Your task to perform on an android device: Empty the shopping cart on target. Image 0: 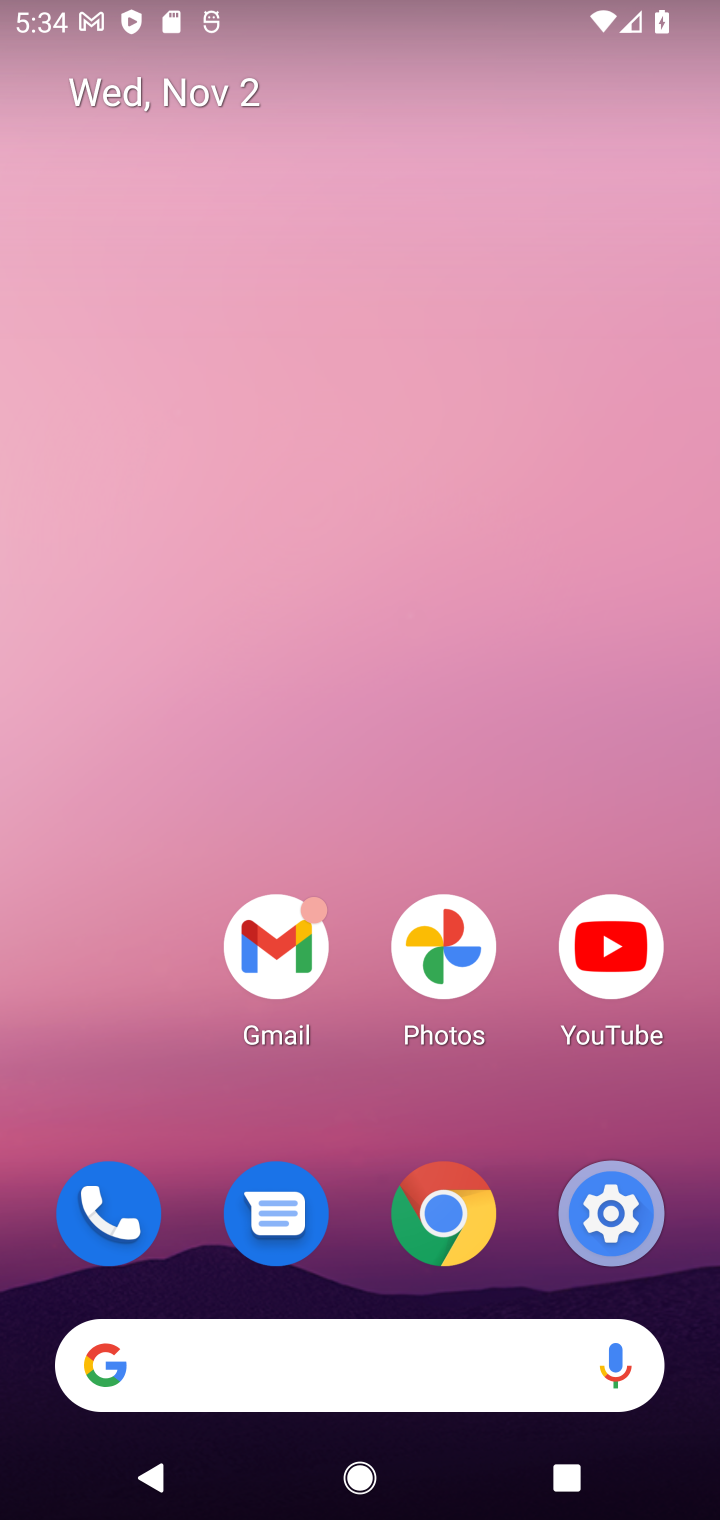
Step 0: click (450, 1220)
Your task to perform on an android device: Empty the shopping cart on target. Image 1: 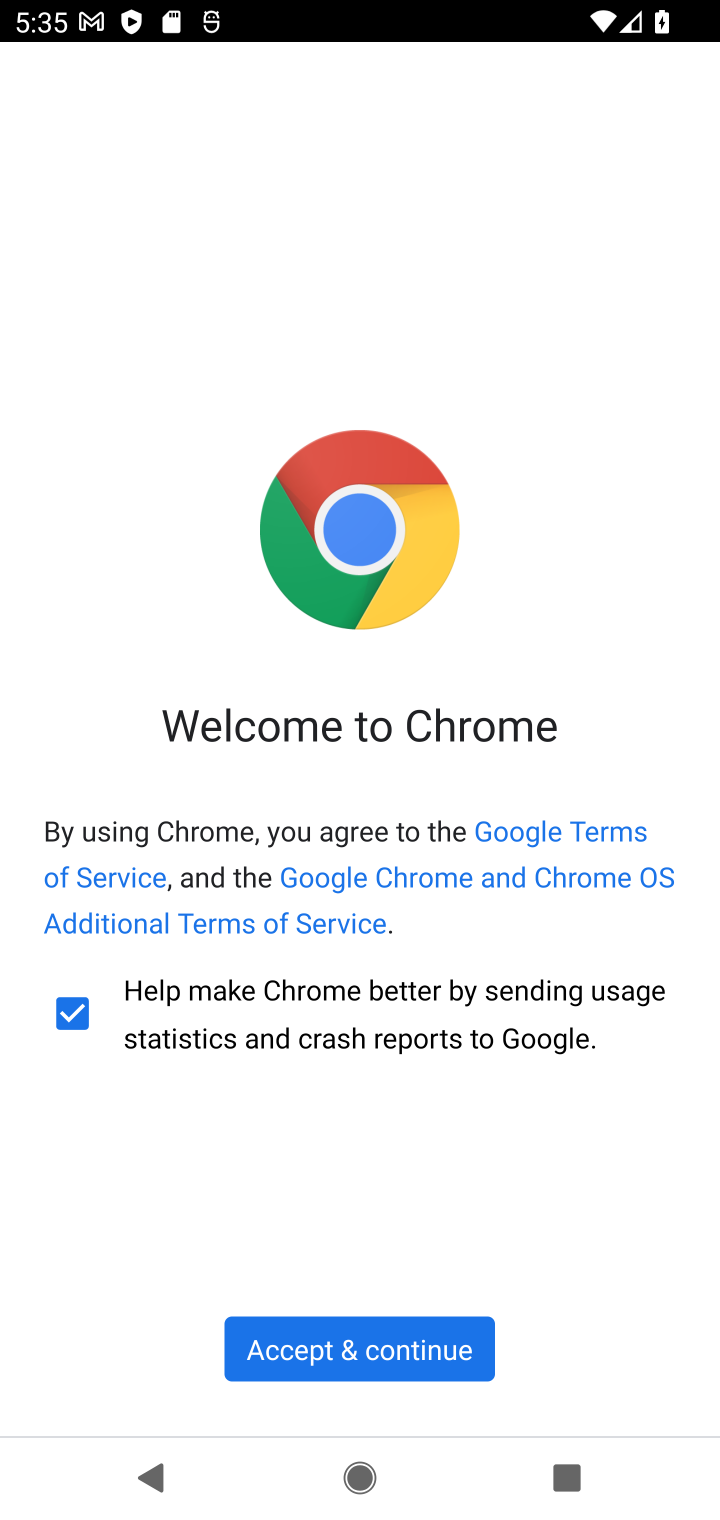
Step 1: click (355, 1353)
Your task to perform on an android device: Empty the shopping cart on target. Image 2: 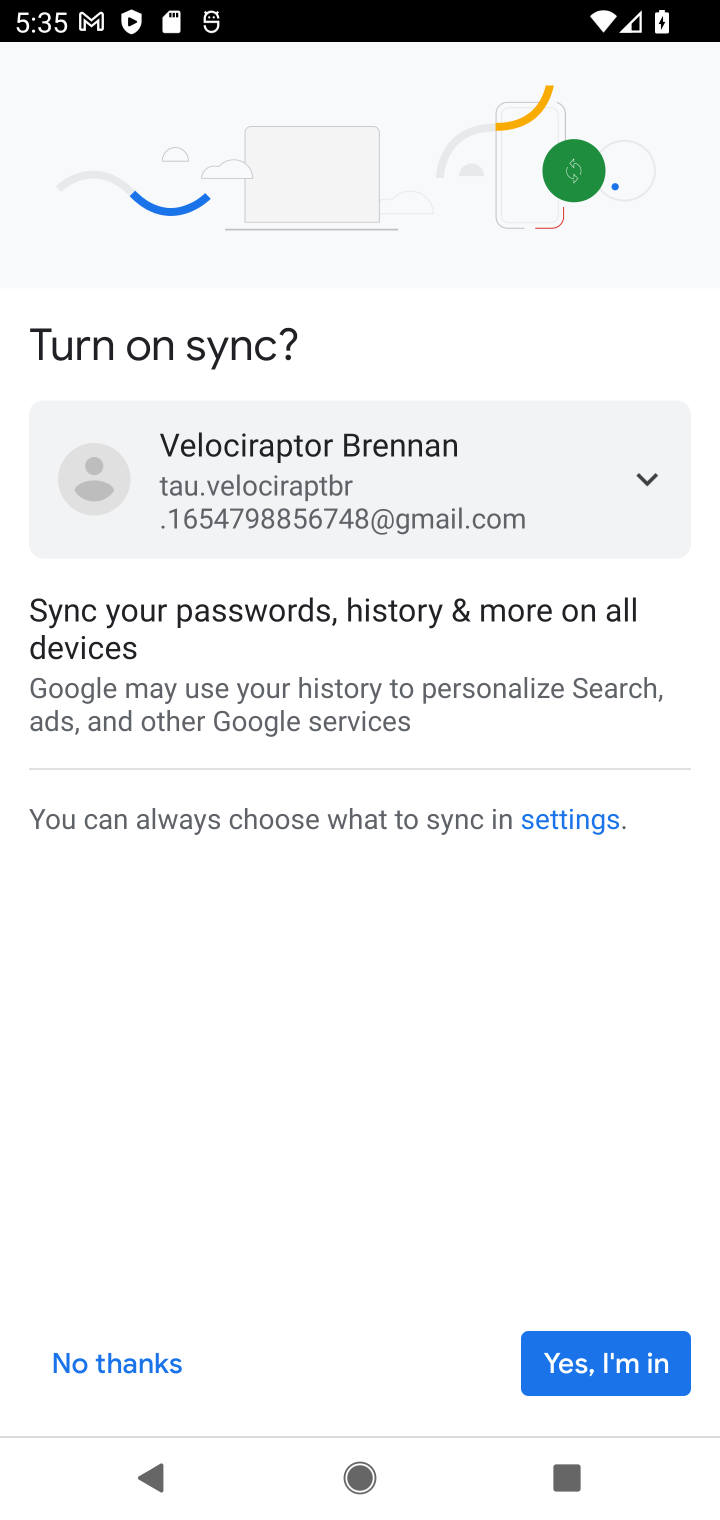
Step 2: click (617, 1359)
Your task to perform on an android device: Empty the shopping cart on target. Image 3: 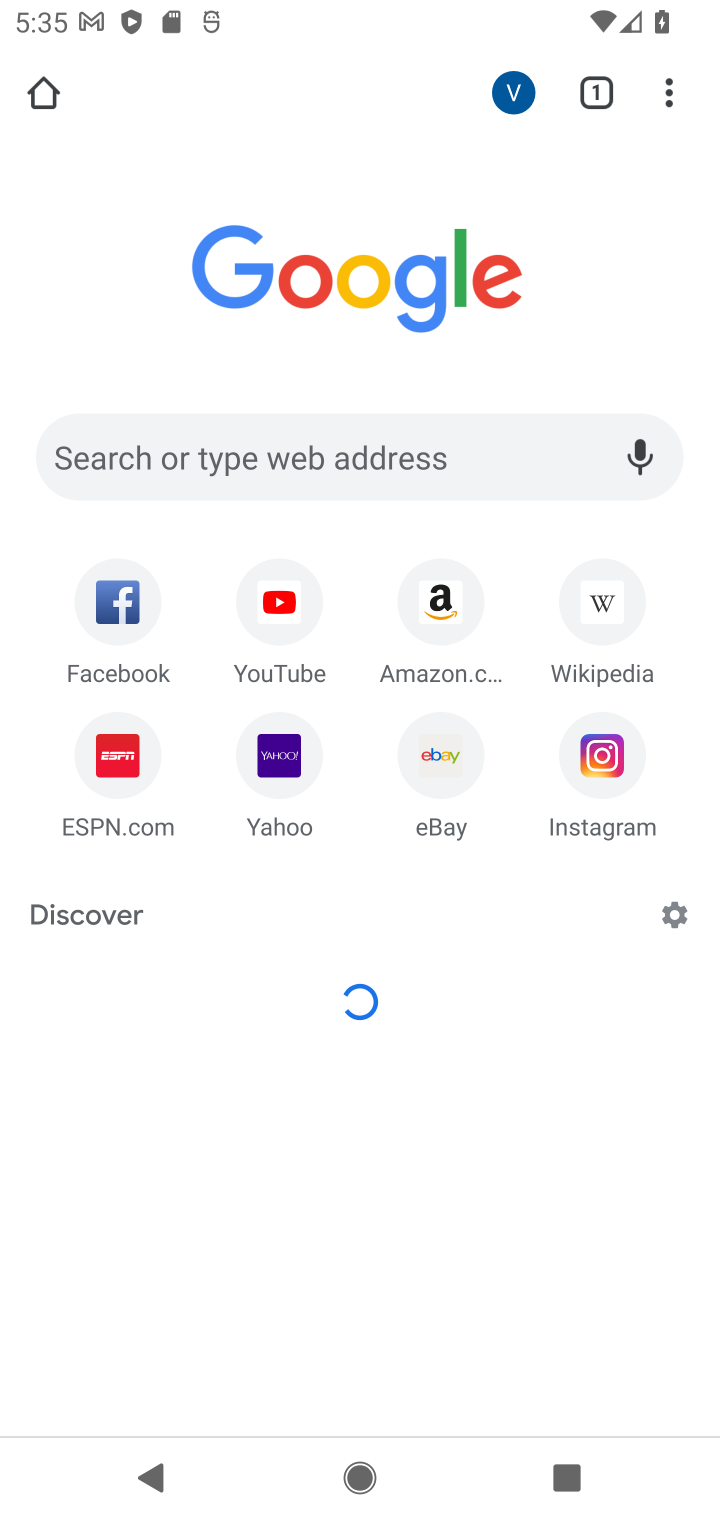
Step 3: click (311, 447)
Your task to perform on an android device: Empty the shopping cart on target. Image 4: 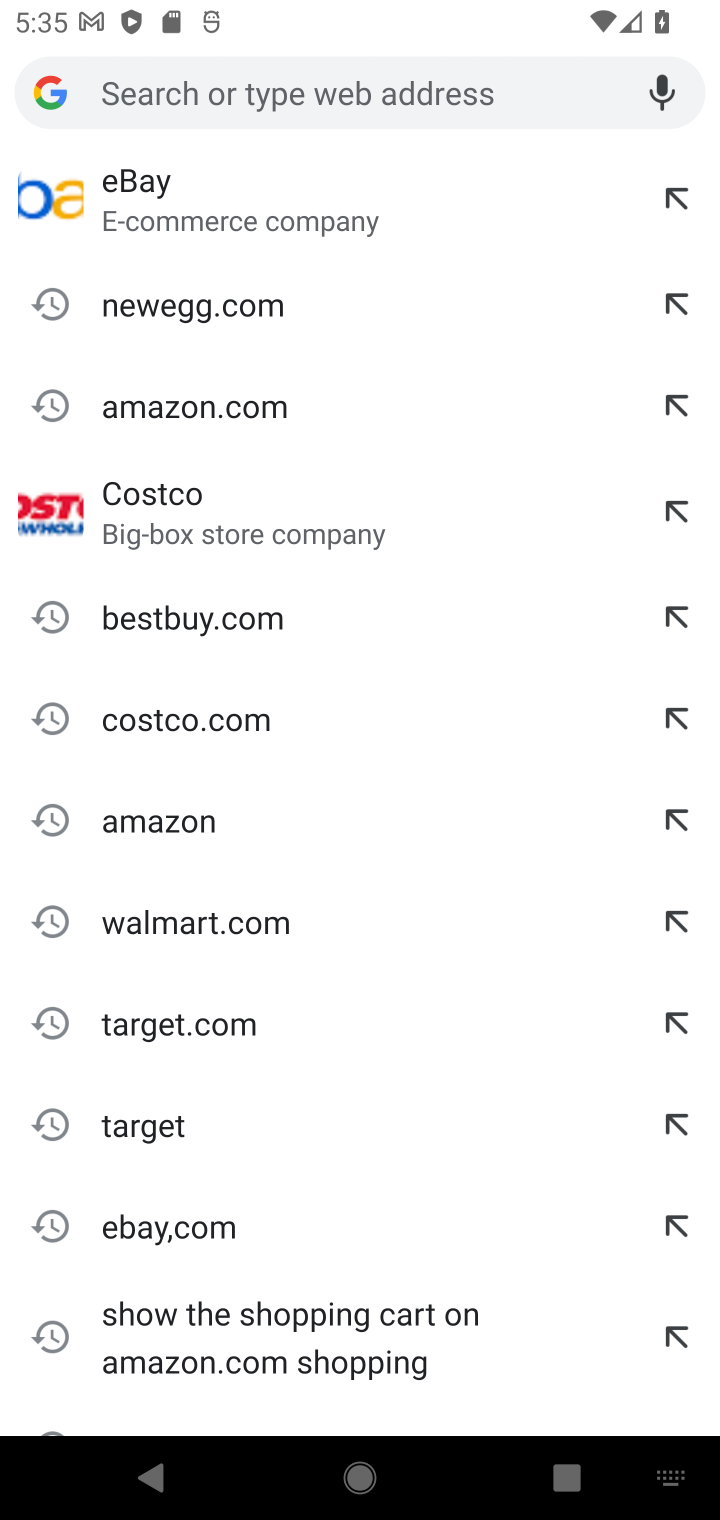
Step 4: type "target"
Your task to perform on an android device: Empty the shopping cart on target. Image 5: 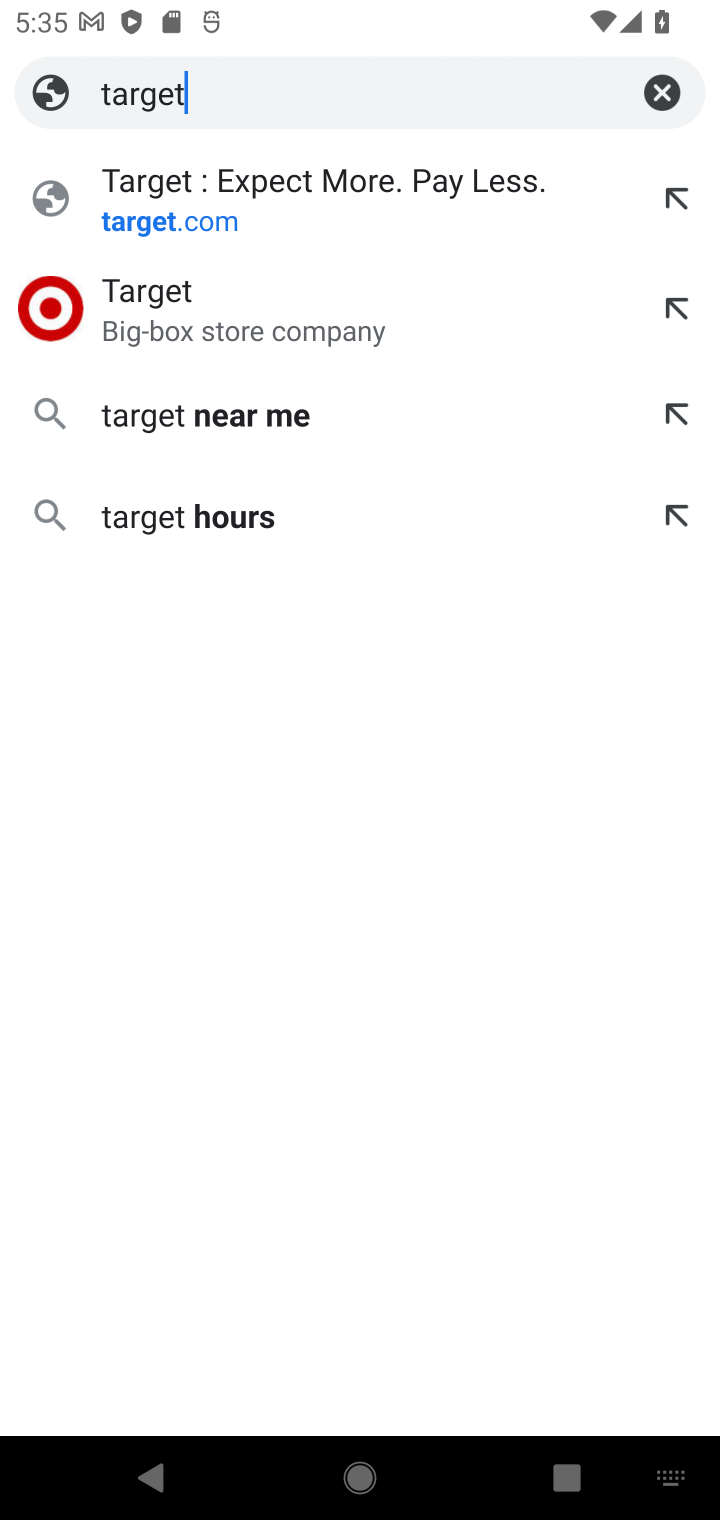
Step 5: click (150, 170)
Your task to perform on an android device: Empty the shopping cart on target. Image 6: 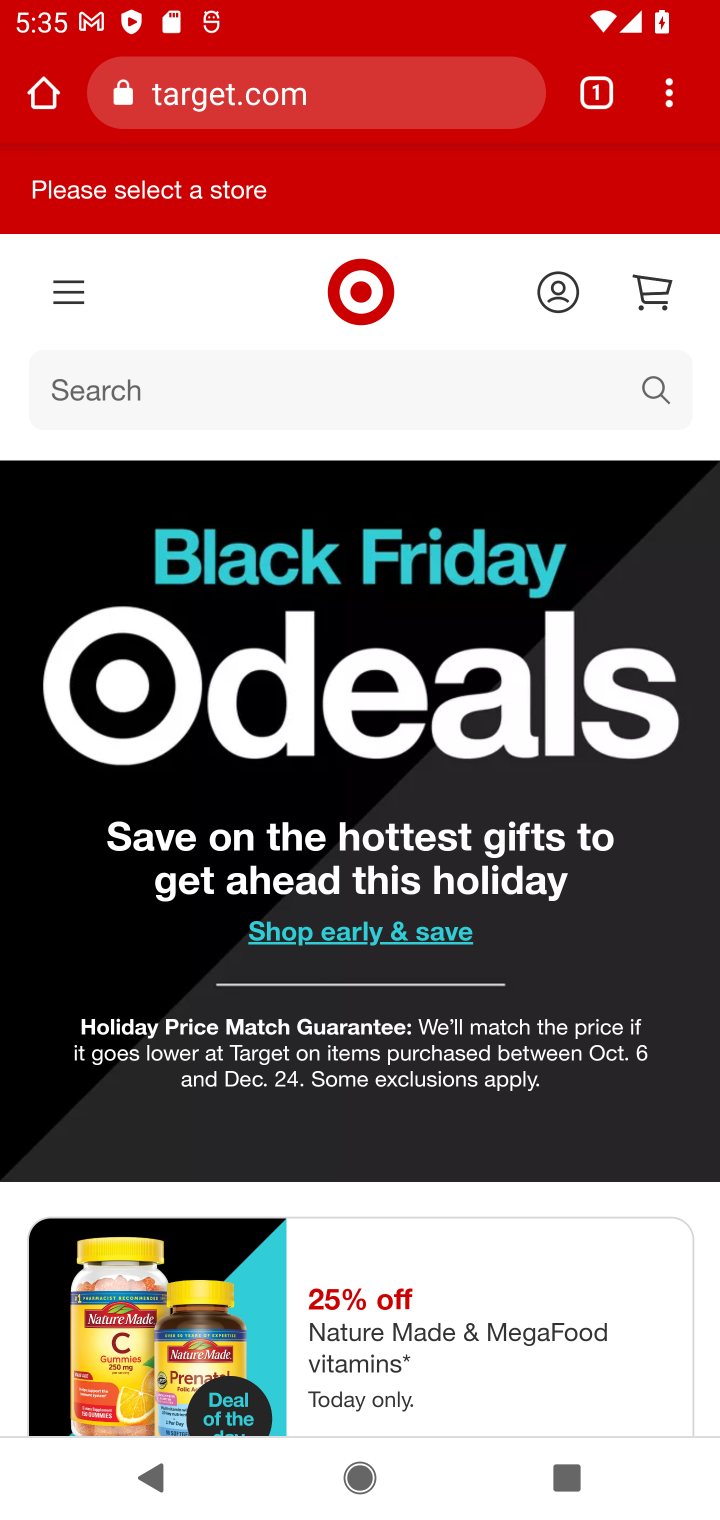
Step 6: click (654, 281)
Your task to perform on an android device: Empty the shopping cart on target. Image 7: 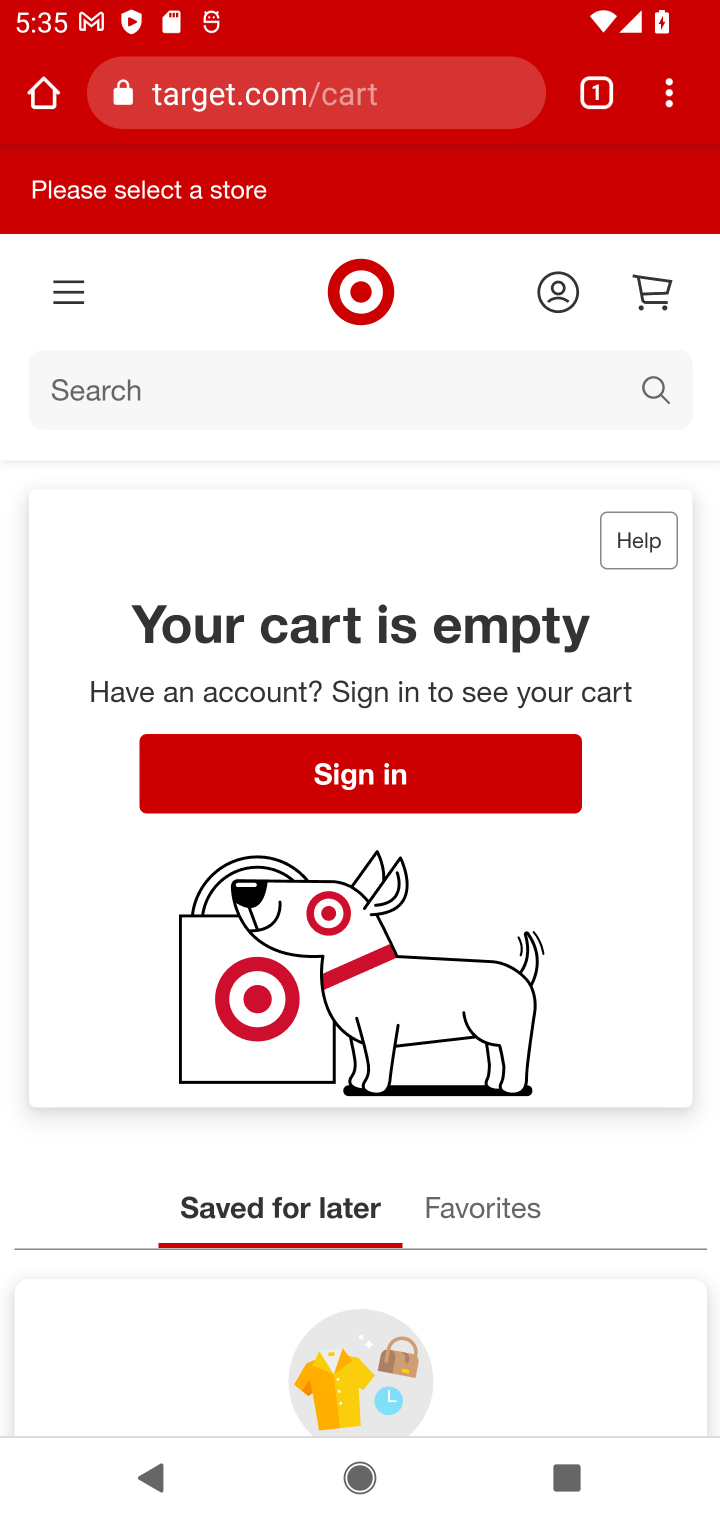
Step 7: task complete